Your task to perform on an android device: Go to wifi settings Image 0: 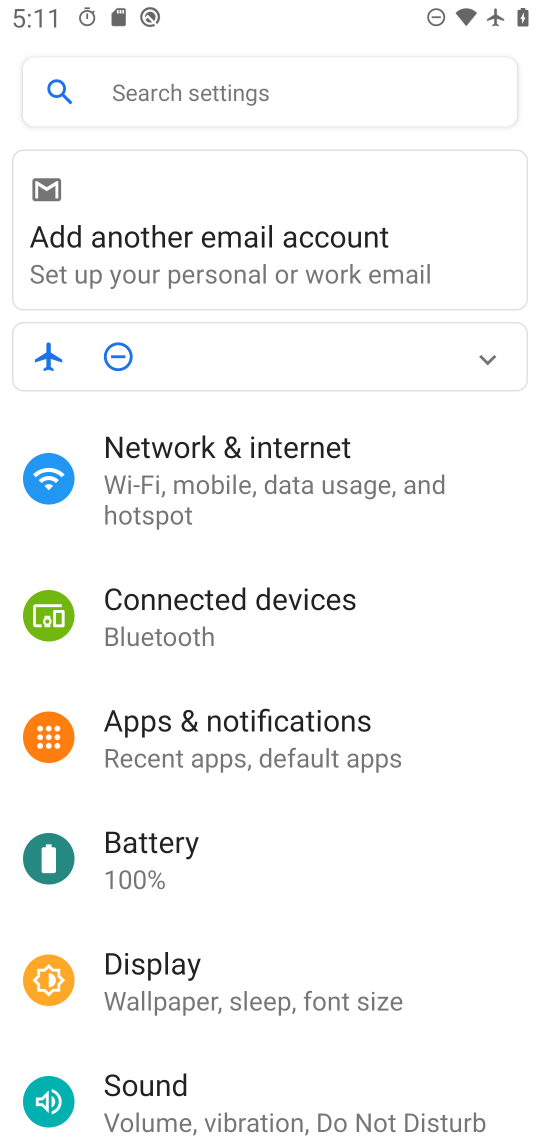
Step 0: press home button
Your task to perform on an android device: Go to wifi settings Image 1: 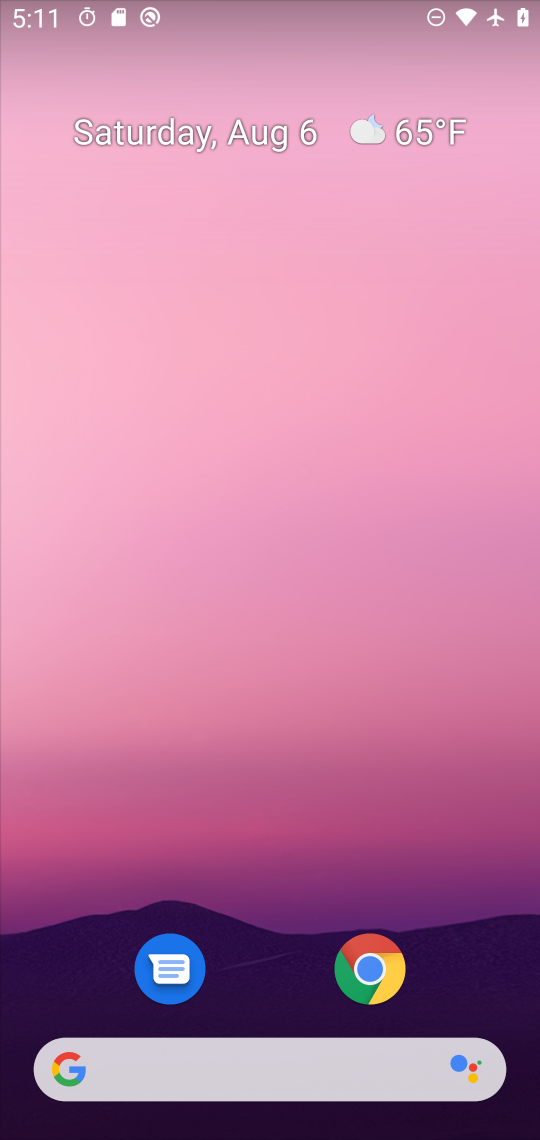
Step 1: drag from (294, 806) to (269, 182)
Your task to perform on an android device: Go to wifi settings Image 2: 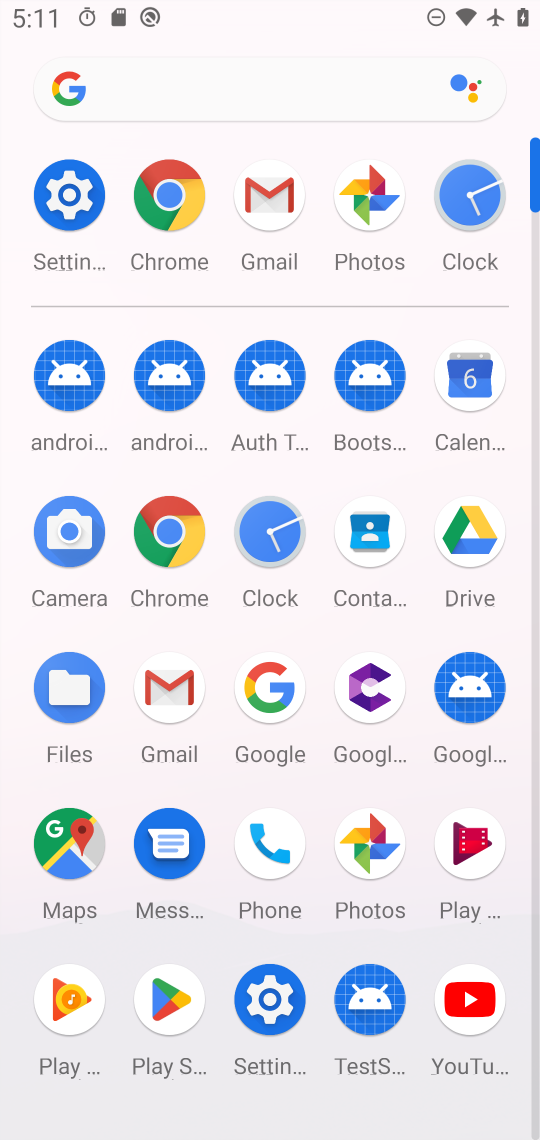
Step 2: click (64, 214)
Your task to perform on an android device: Go to wifi settings Image 3: 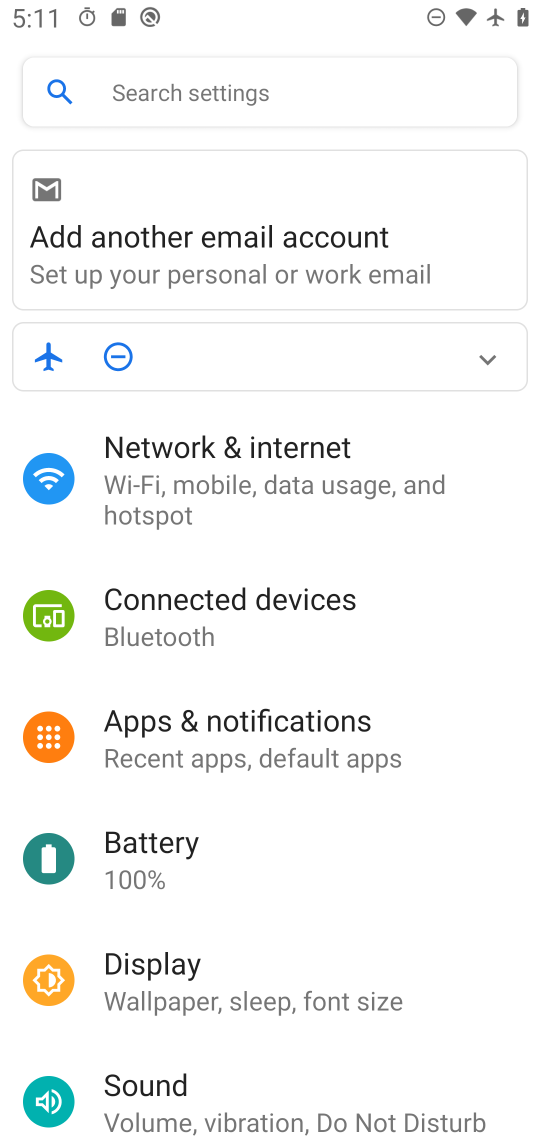
Step 3: click (226, 480)
Your task to perform on an android device: Go to wifi settings Image 4: 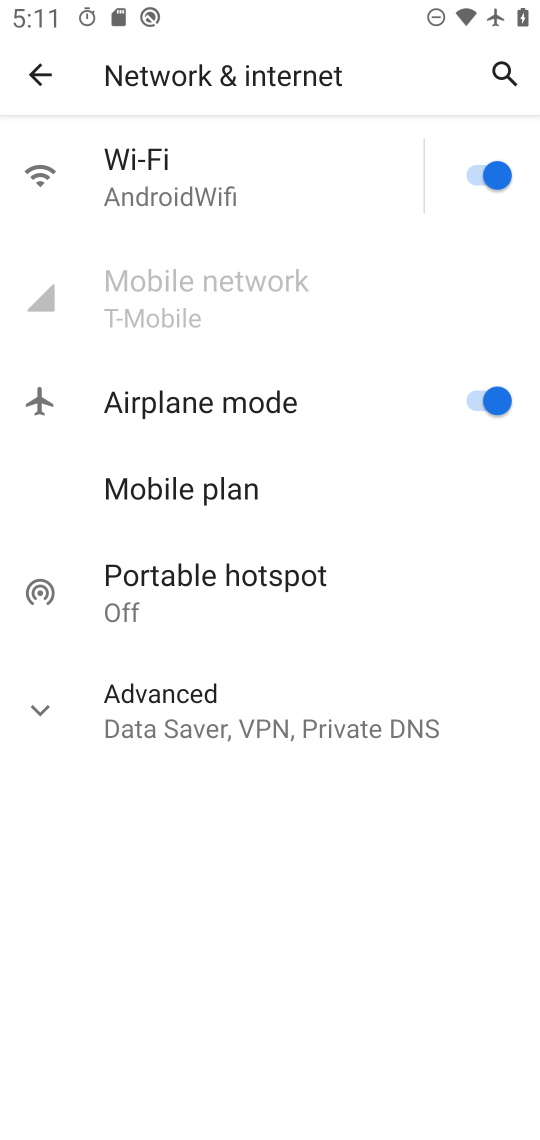
Step 4: click (148, 176)
Your task to perform on an android device: Go to wifi settings Image 5: 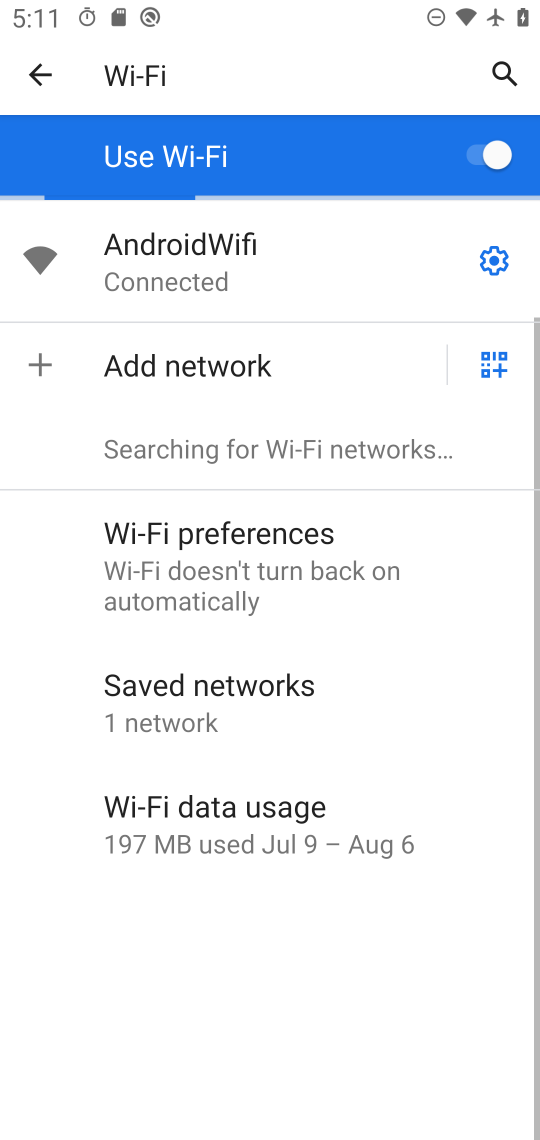
Step 5: click (178, 277)
Your task to perform on an android device: Go to wifi settings Image 6: 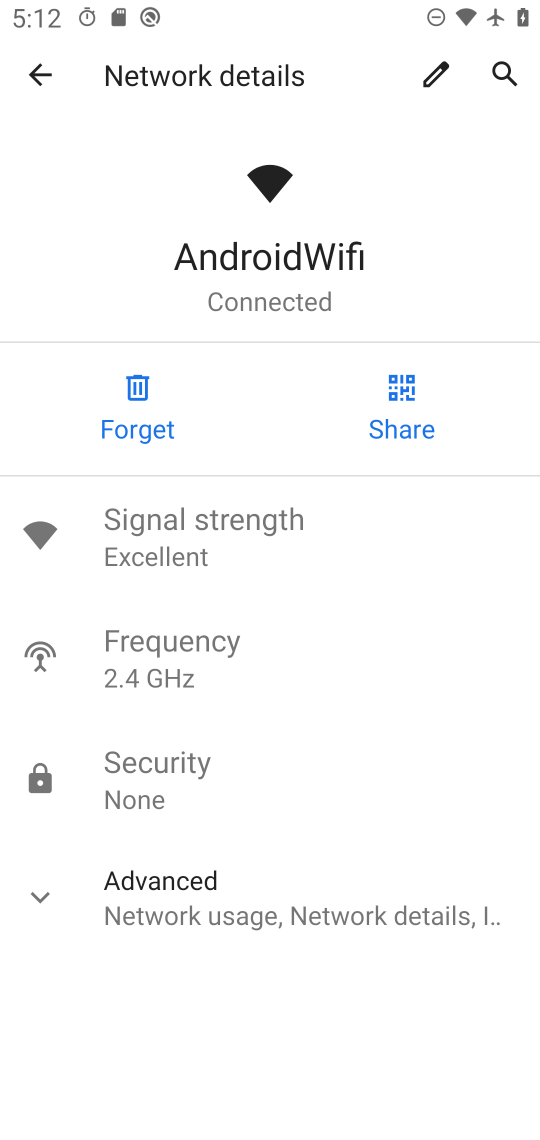
Step 6: task complete